Your task to perform on an android device: find which apps use the phone's location Image 0: 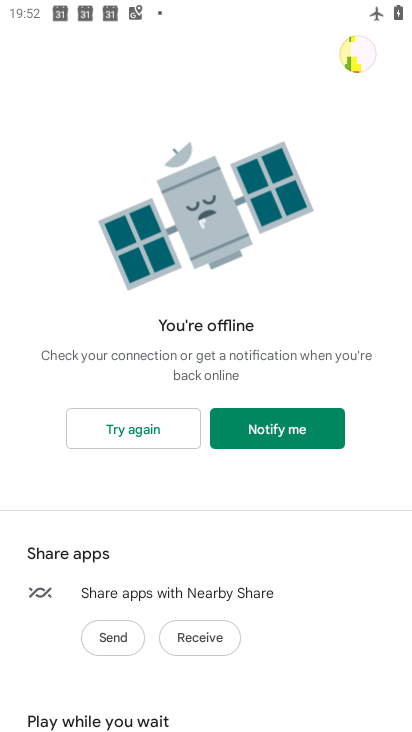
Step 0: press home button
Your task to perform on an android device: find which apps use the phone's location Image 1: 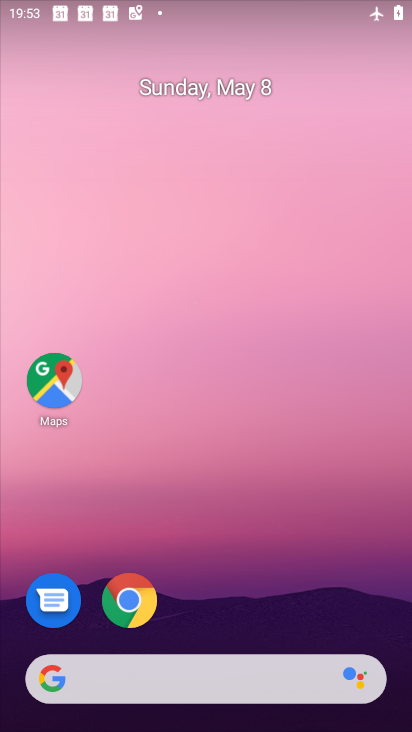
Step 1: drag from (281, 710) to (253, 245)
Your task to perform on an android device: find which apps use the phone's location Image 2: 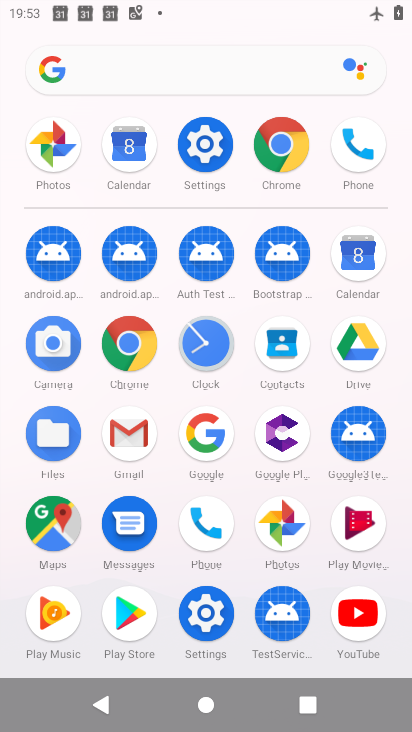
Step 2: click (198, 151)
Your task to perform on an android device: find which apps use the phone's location Image 3: 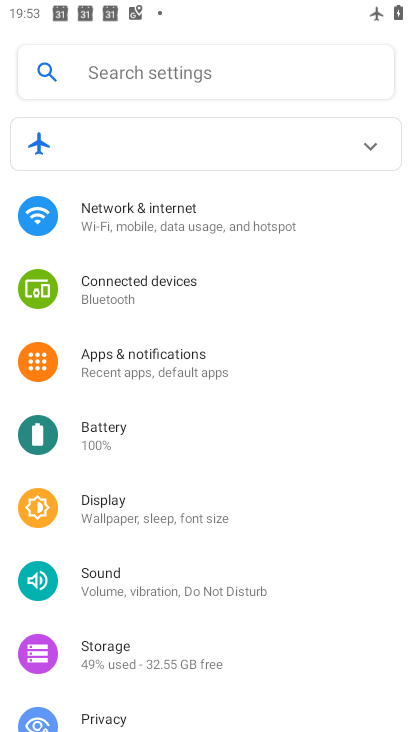
Step 3: click (271, 74)
Your task to perform on an android device: find which apps use the phone's location Image 4: 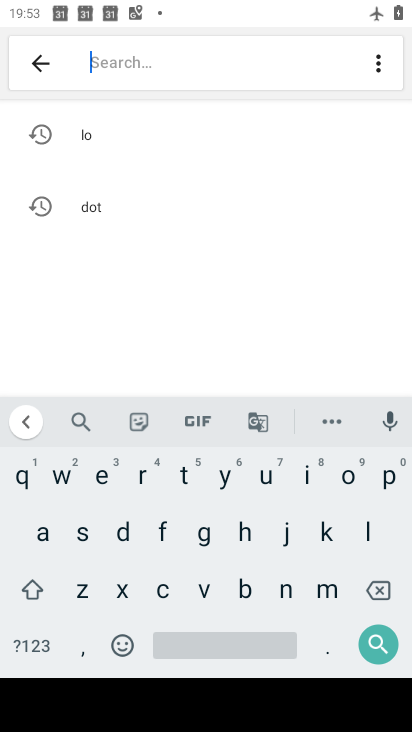
Step 4: click (163, 131)
Your task to perform on an android device: find which apps use the phone's location Image 5: 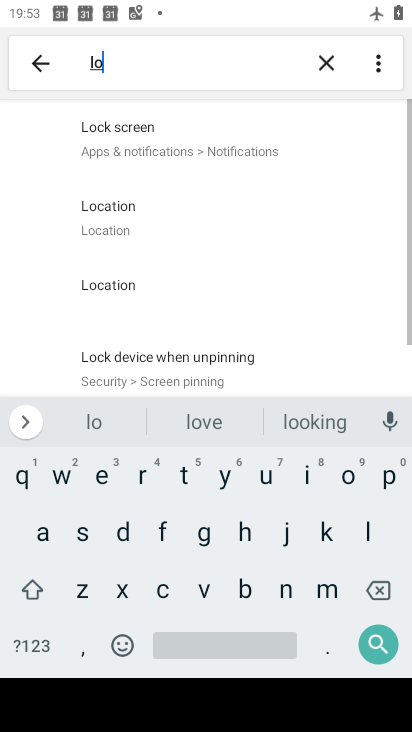
Step 5: click (186, 232)
Your task to perform on an android device: find which apps use the phone's location Image 6: 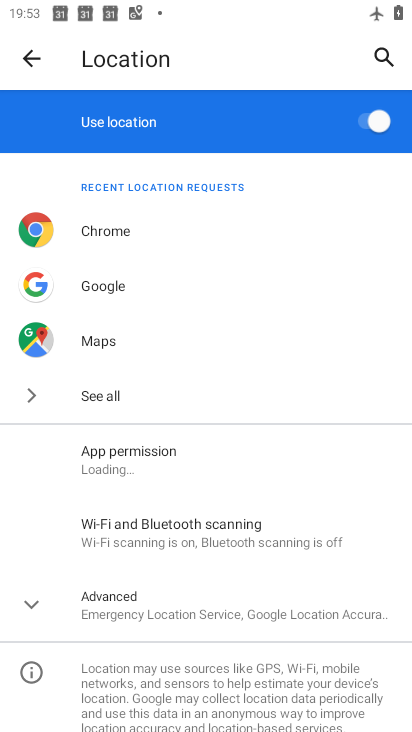
Step 6: click (94, 394)
Your task to perform on an android device: find which apps use the phone's location Image 7: 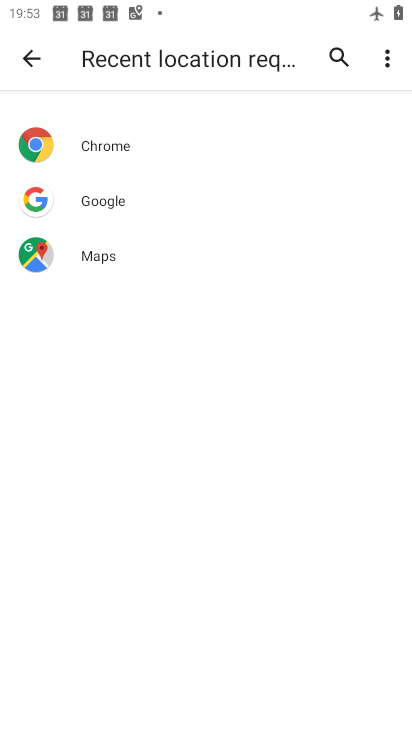
Step 7: task complete